Your task to perform on an android device: Open internet settings Image 0: 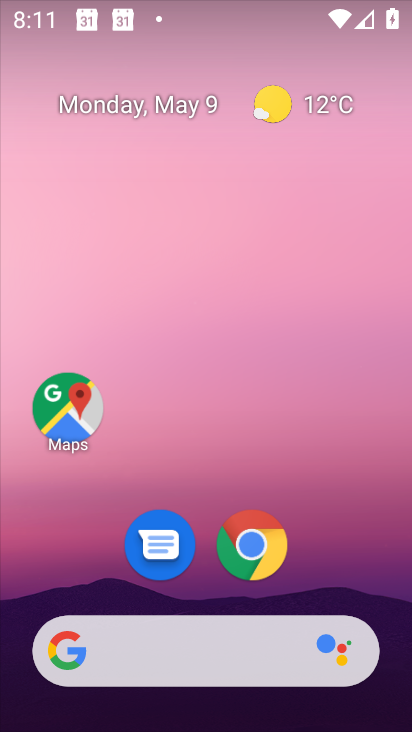
Step 0: drag from (199, 725) to (193, 228)
Your task to perform on an android device: Open internet settings Image 1: 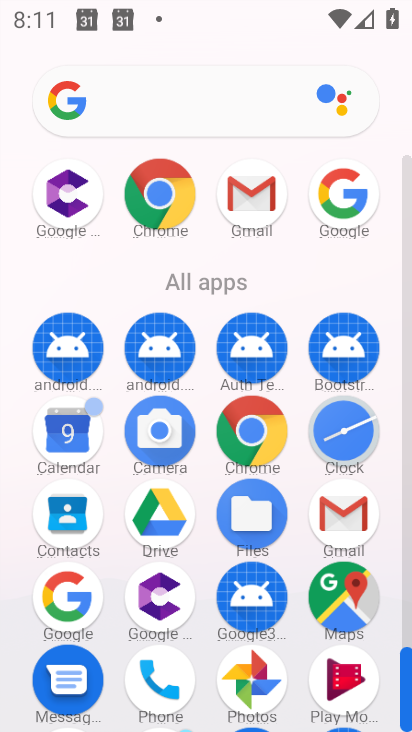
Step 1: drag from (23, 615) to (14, 214)
Your task to perform on an android device: Open internet settings Image 2: 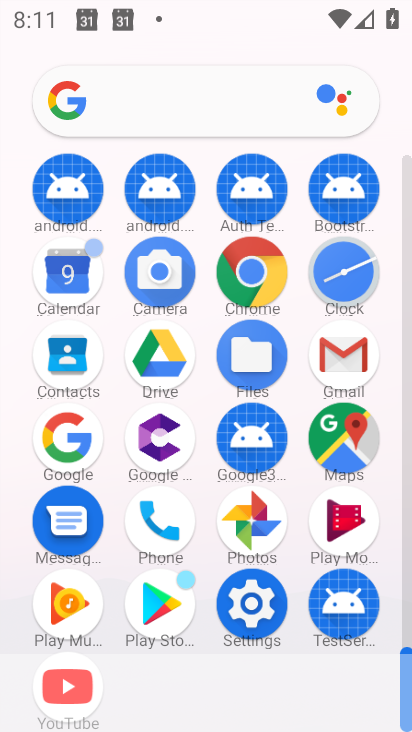
Step 2: click (260, 605)
Your task to perform on an android device: Open internet settings Image 3: 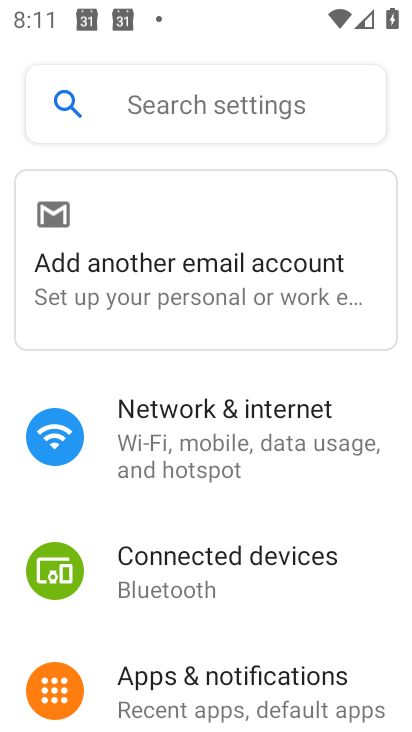
Step 3: click (205, 444)
Your task to perform on an android device: Open internet settings Image 4: 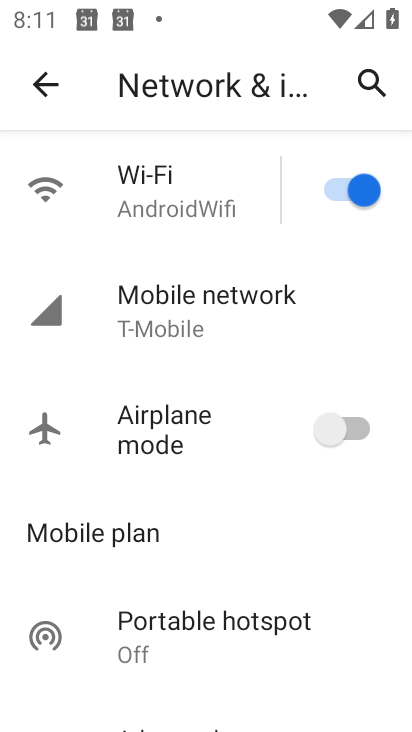
Step 4: click (189, 317)
Your task to perform on an android device: Open internet settings Image 5: 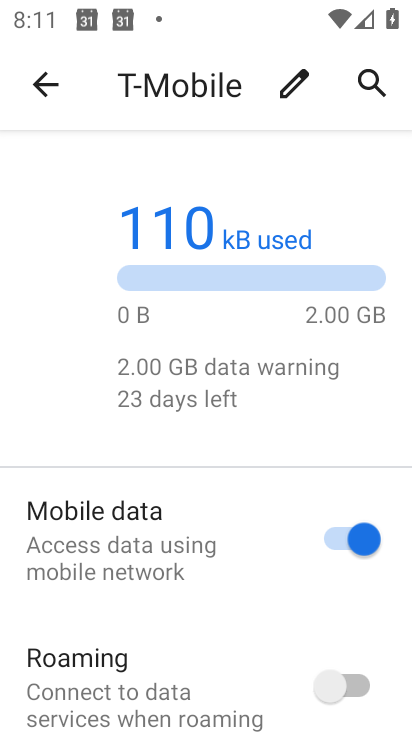
Step 5: task complete